Your task to perform on an android device: Add macbook to the cart on target.com, then select checkout. Image 0: 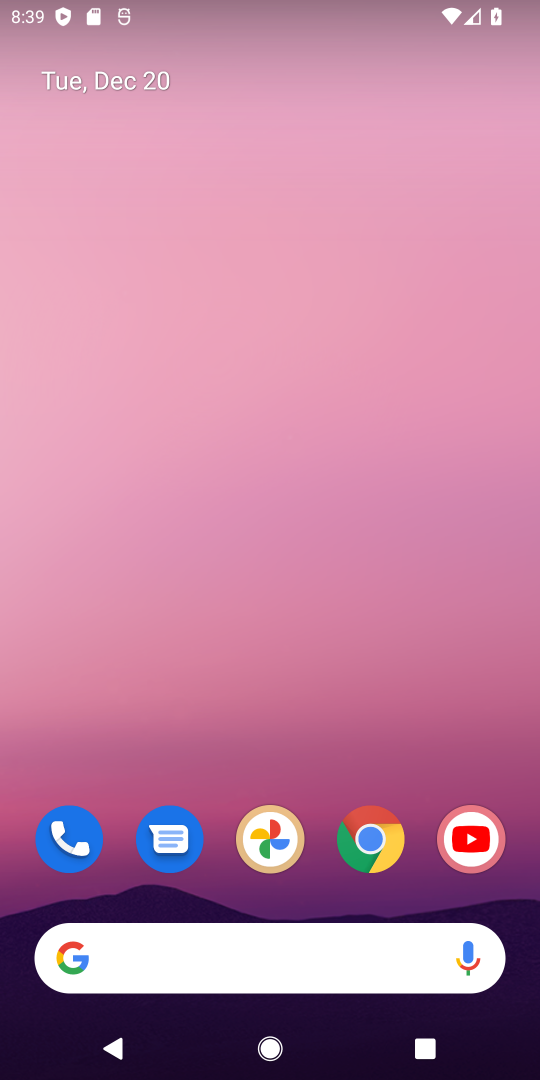
Step 0: drag from (269, 872) to (320, 353)
Your task to perform on an android device: Add macbook to the cart on target.com, then select checkout. Image 1: 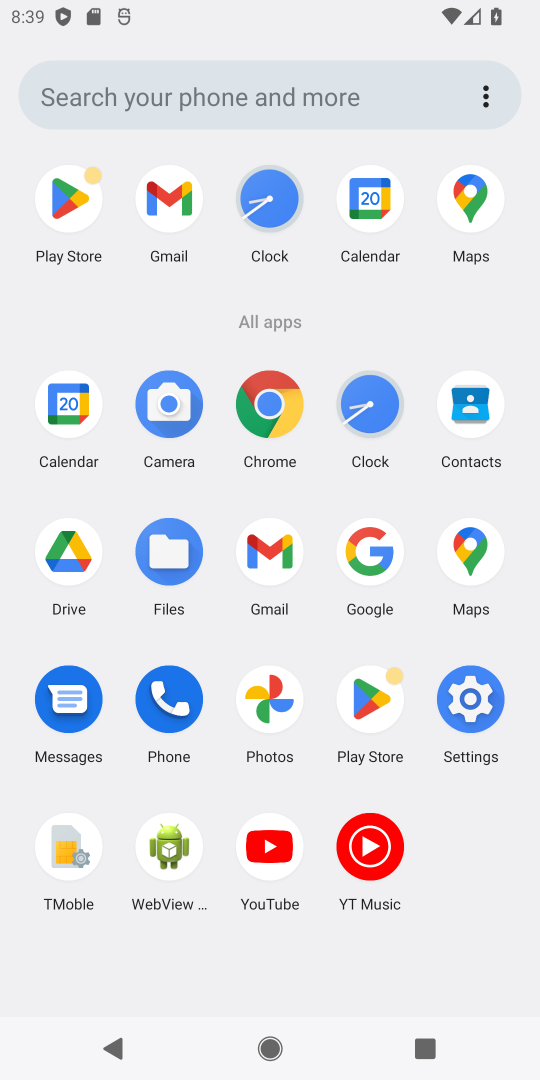
Step 1: click (375, 555)
Your task to perform on an android device: Add macbook to the cart on target.com, then select checkout. Image 2: 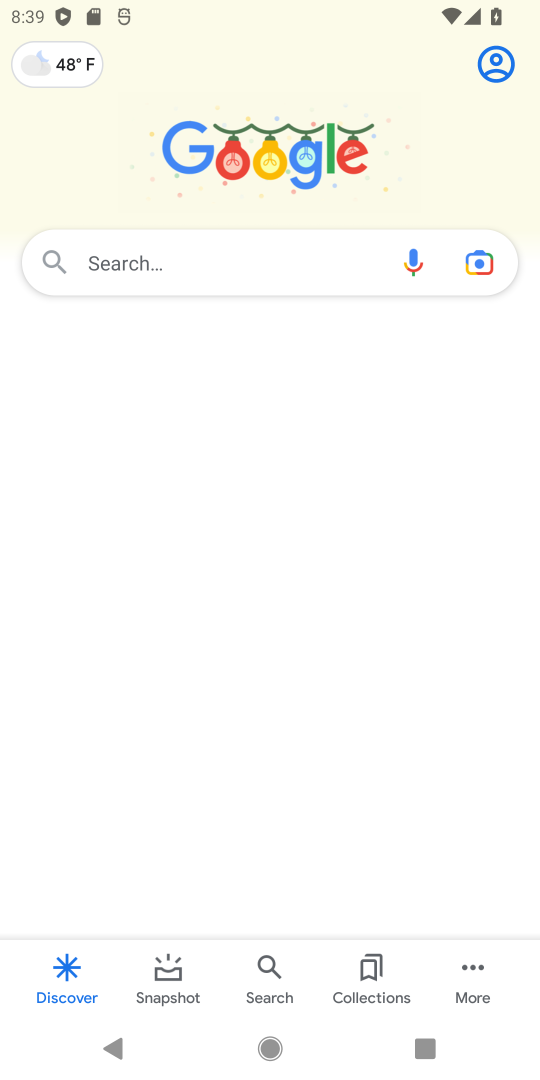
Step 2: click (221, 232)
Your task to perform on an android device: Add macbook to the cart on target.com, then select checkout. Image 3: 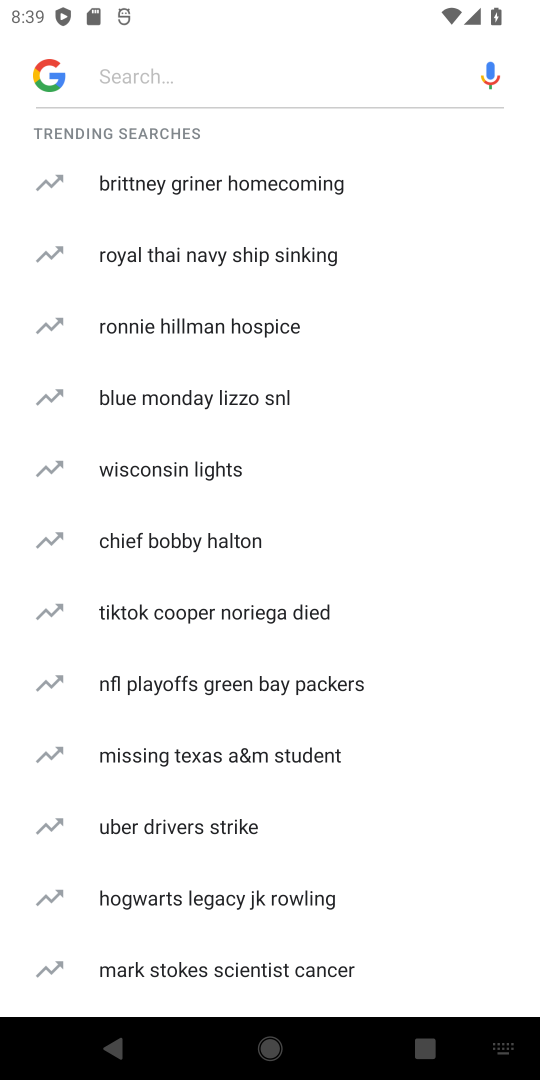
Step 3: type "target.com"
Your task to perform on an android device: Add macbook to the cart on target.com, then select checkout. Image 4: 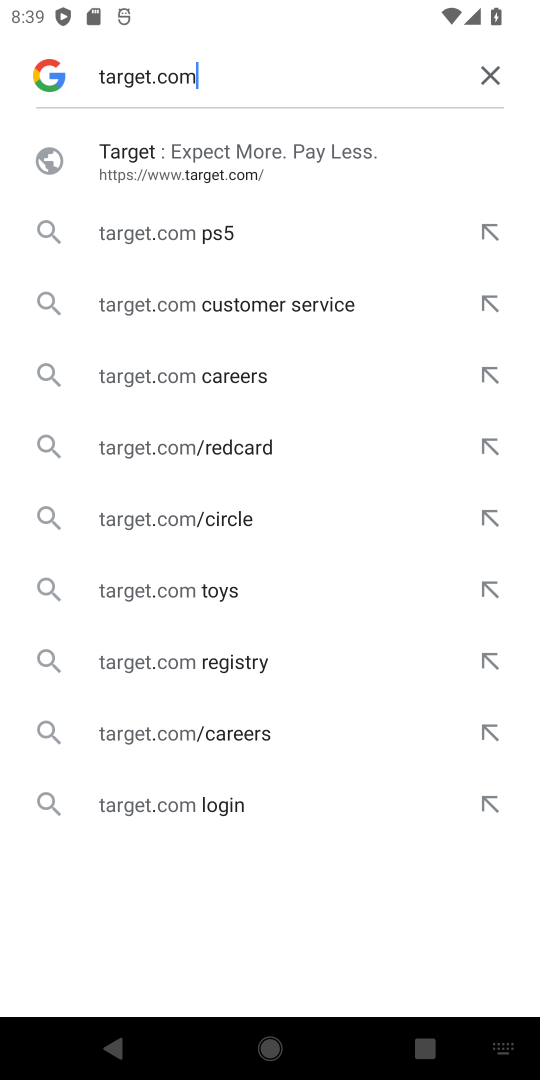
Step 4: click (208, 175)
Your task to perform on an android device: Add macbook to the cart on target.com, then select checkout. Image 5: 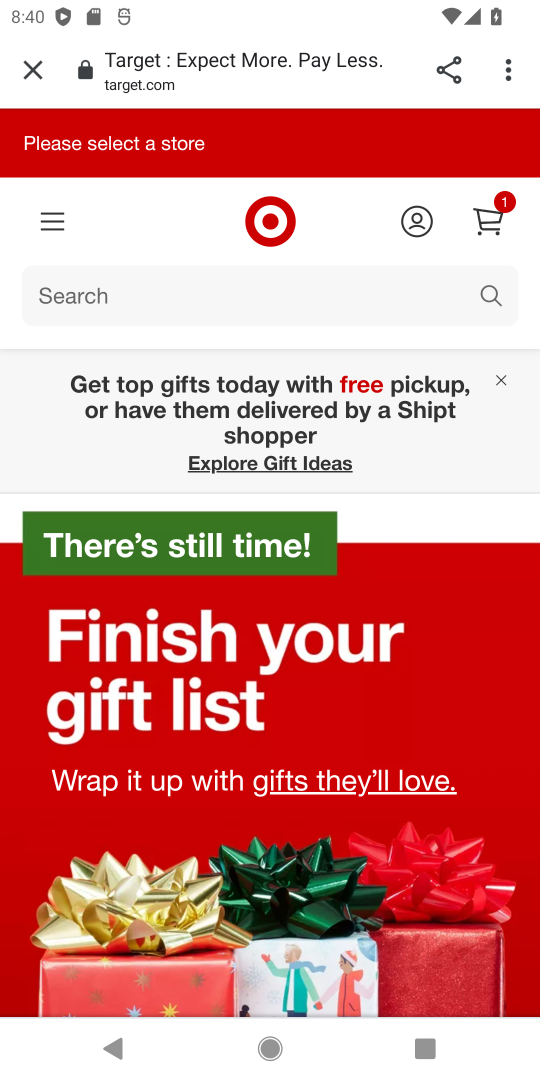
Step 5: click (319, 296)
Your task to perform on an android device: Add macbook to the cart on target.com, then select checkout. Image 6: 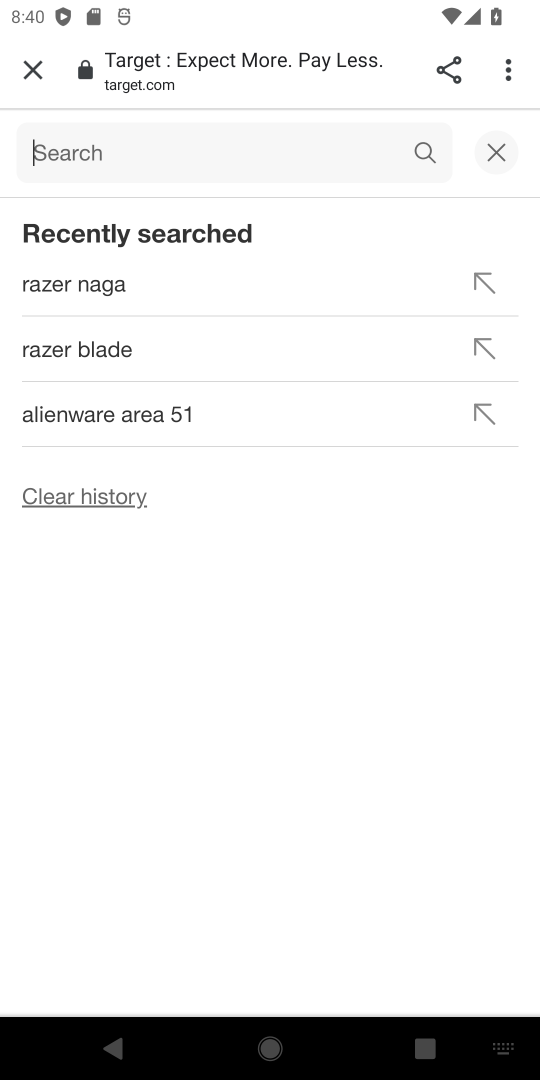
Step 6: type "macbook"
Your task to perform on an android device: Add macbook to the cart on target.com, then select checkout. Image 7: 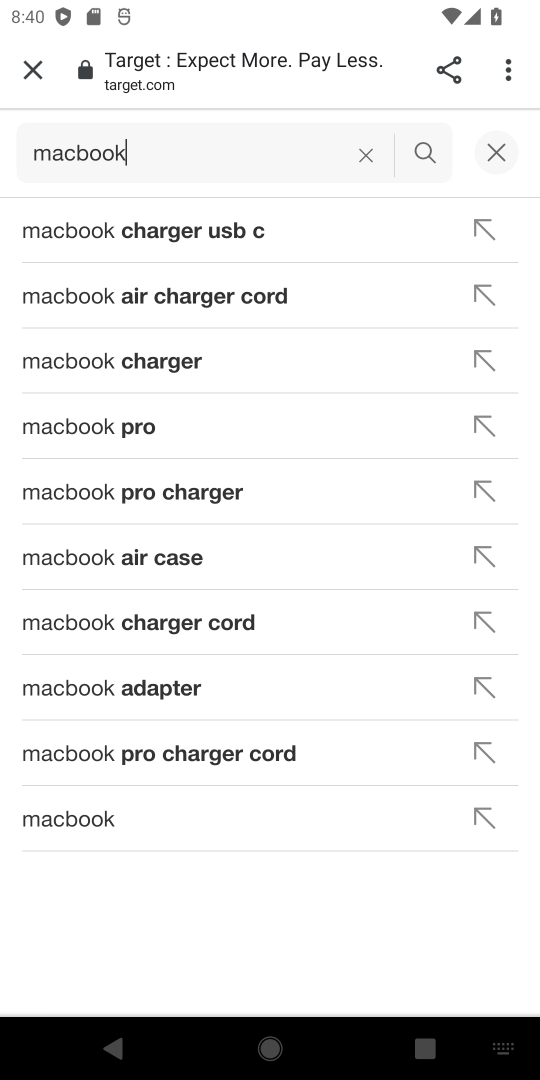
Step 7: click (416, 139)
Your task to perform on an android device: Add macbook to the cart on target.com, then select checkout. Image 8: 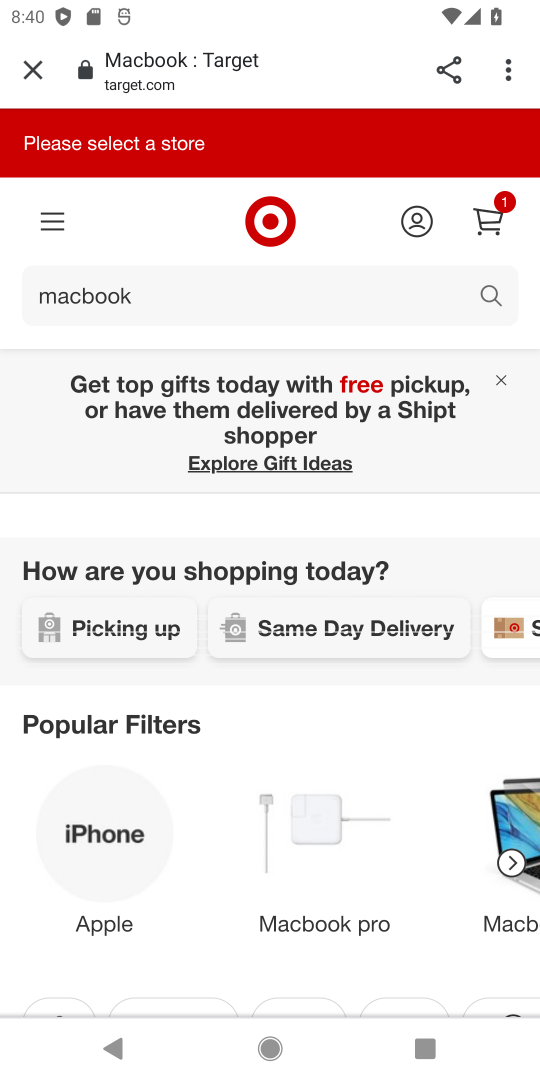
Step 8: drag from (298, 798) to (317, 540)
Your task to perform on an android device: Add macbook to the cart on target.com, then select checkout. Image 9: 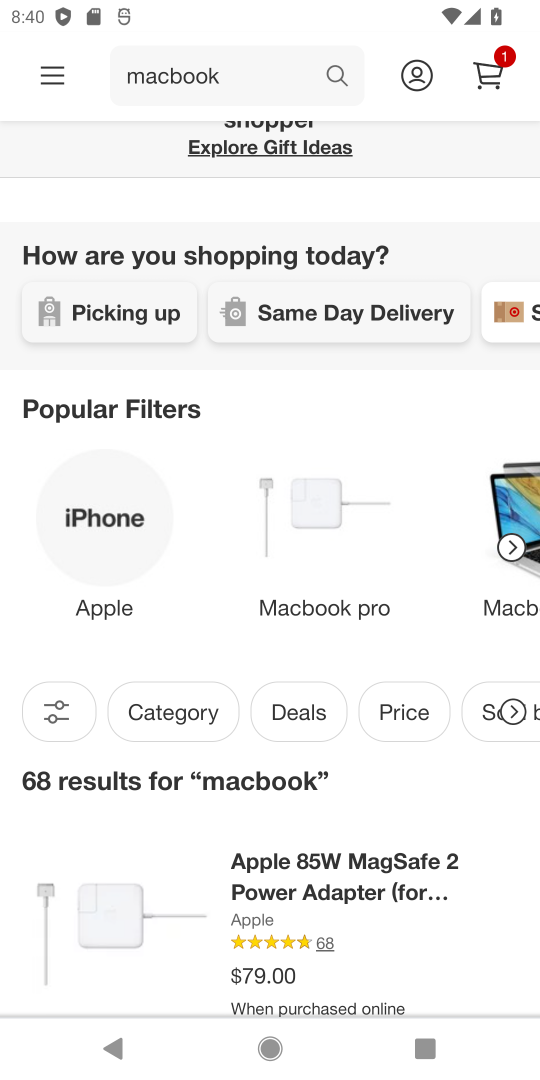
Step 9: drag from (229, 810) to (229, 597)
Your task to perform on an android device: Add macbook to the cart on target.com, then select checkout. Image 10: 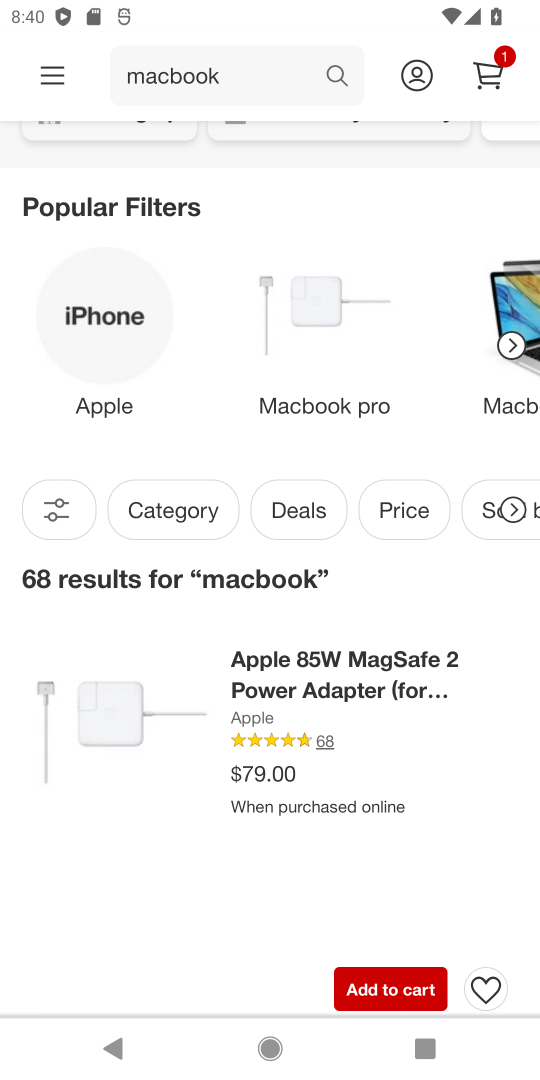
Step 10: click (404, 991)
Your task to perform on an android device: Add macbook to the cart on target.com, then select checkout. Image 11: 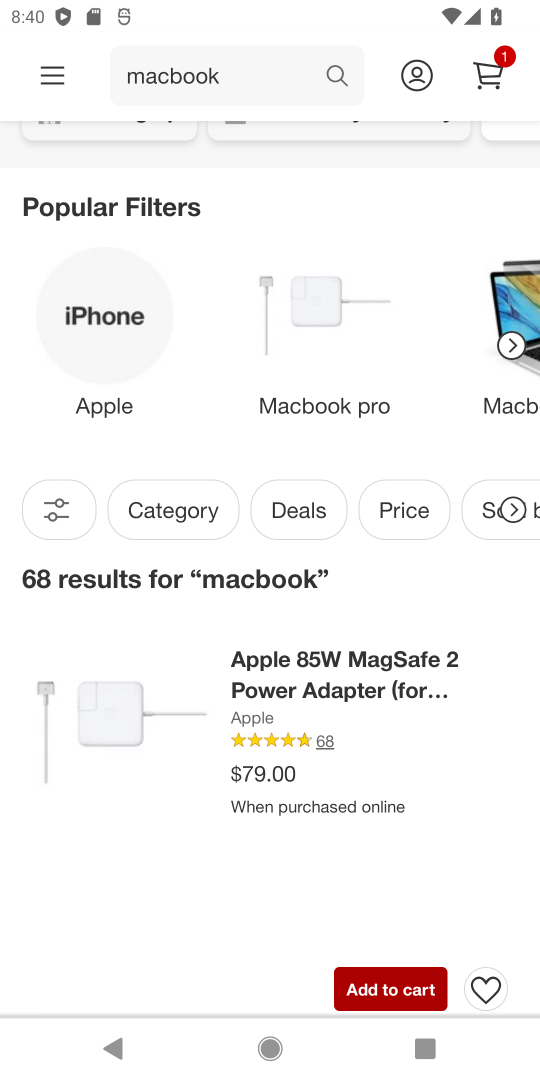
Step 11: click (379, 999)
Your task to perform on an android device: Add macbook to the cart on target.com, then select checkout. Image 12: 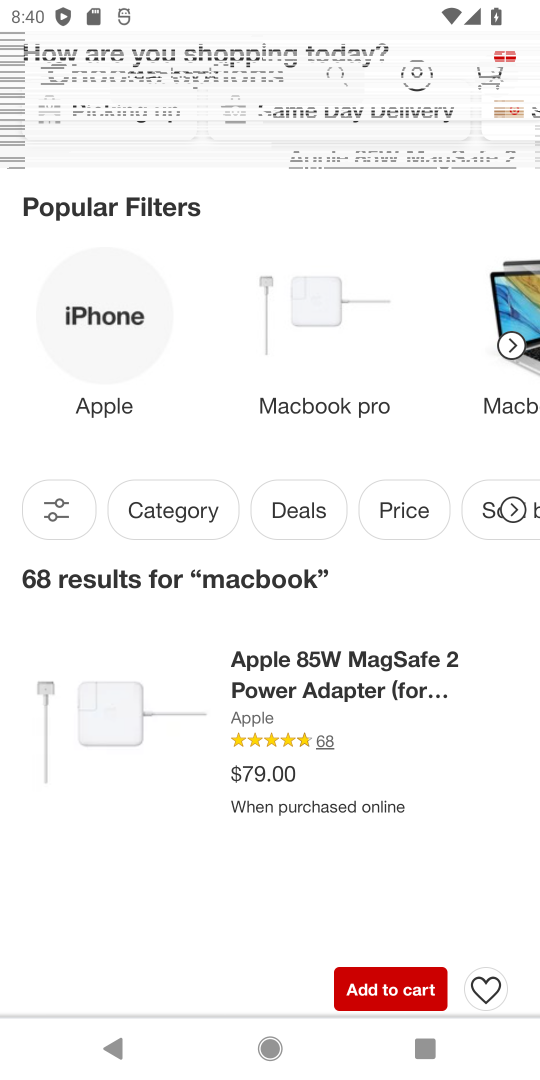
Step 12: click (498, 61)
Your task to perform on an android device: Add macbook to the cart on target.com, then select checkout. Image 13: 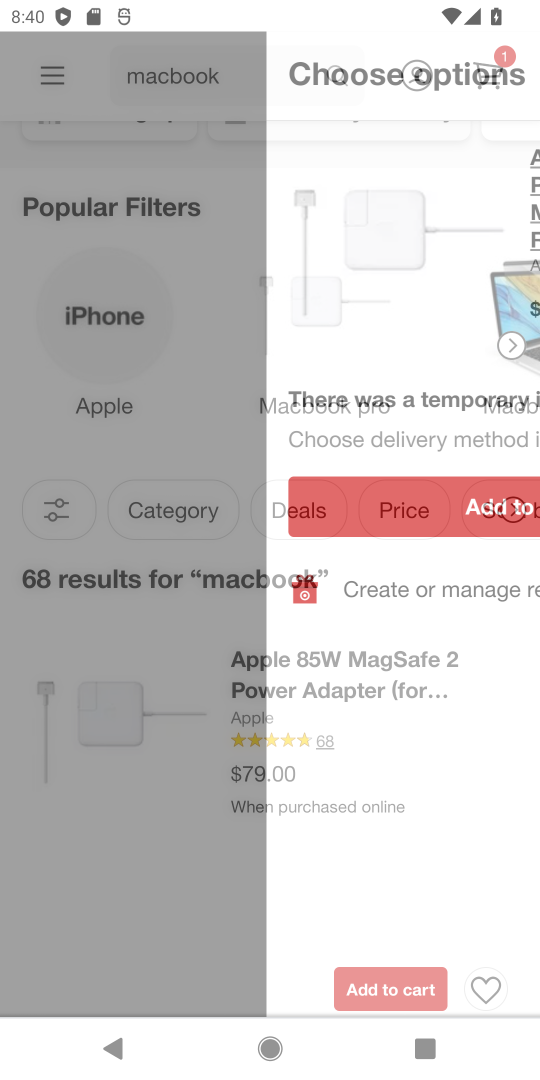
Step 13: click (0, 738)
Your task to perform on an android device: Add macbook to the cart on target.com, then select checkout. Image 14: 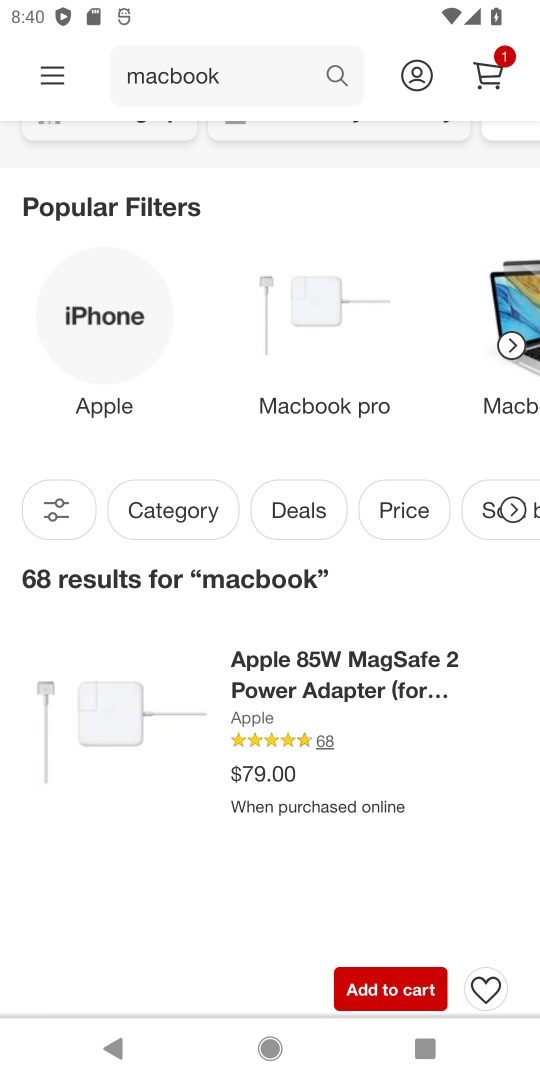
Step 14: click (293, 893)
Your task to perform on an android device: Add macbook to the cart on target.com, then select checkout. Image 15: 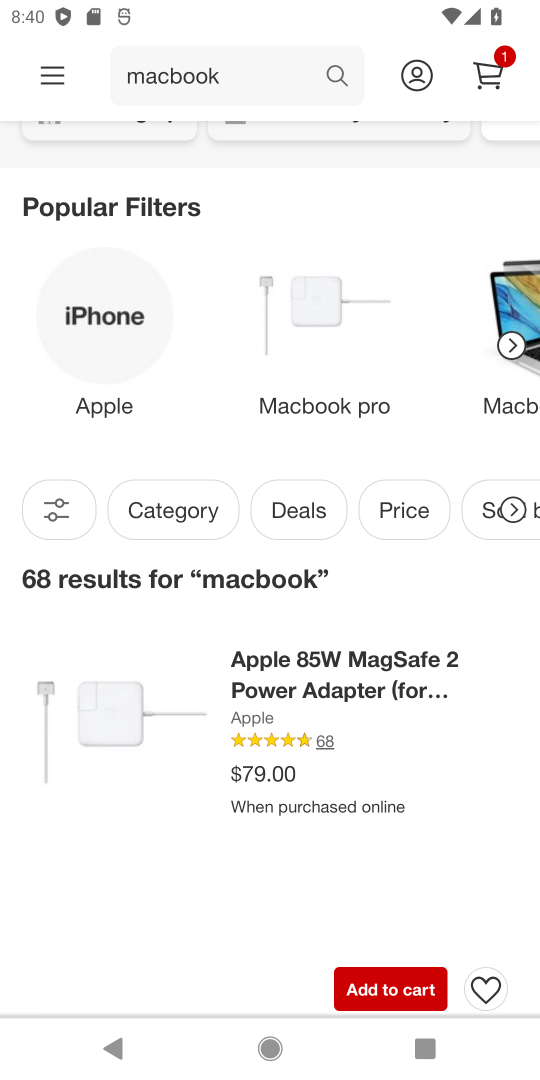
Step 15: click (495, 81)
Your task to perform on an android device: Add macbook to the cart on target.com, then select checkout. Image 16: 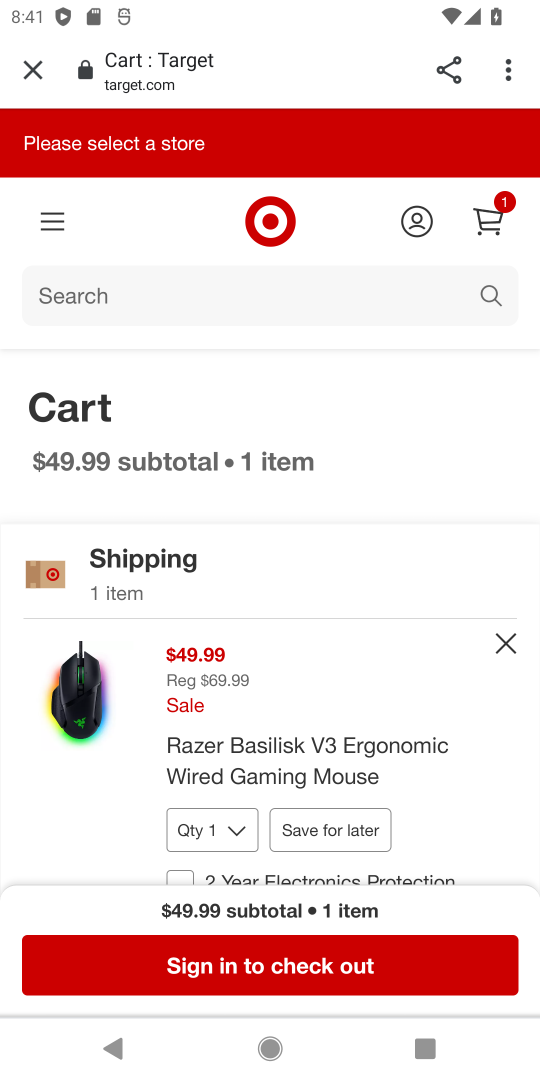
Step 16: drag from (429, 545) to (429, 351)
Your task to perform on an android device: Add macbook to the cart on target.com, then select checkout. Image 17: 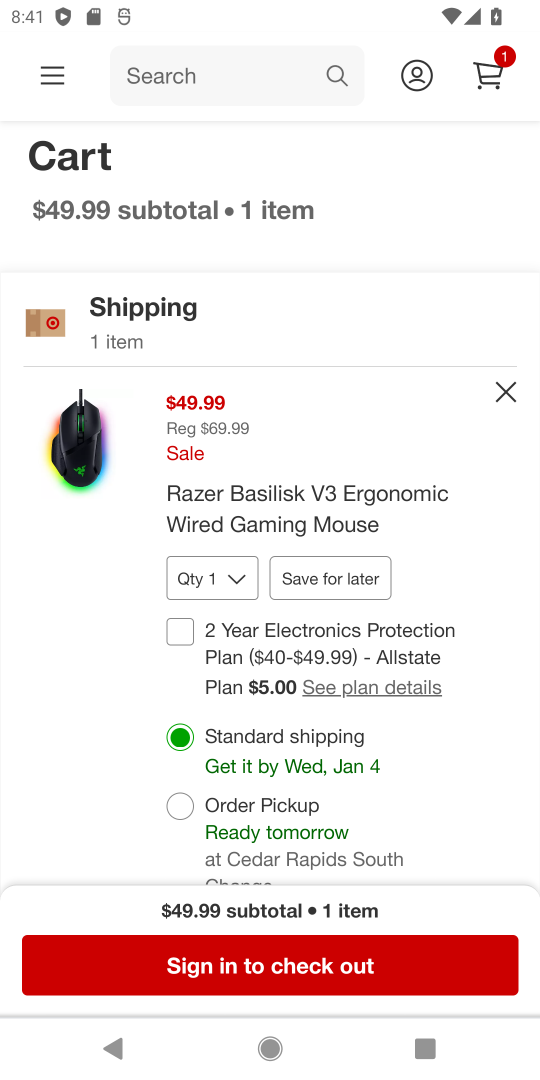
Step 17: click (249, 976)
Your task to perform on an android device: Add macbook to the cart on target.com, then select checkout. Image 18: 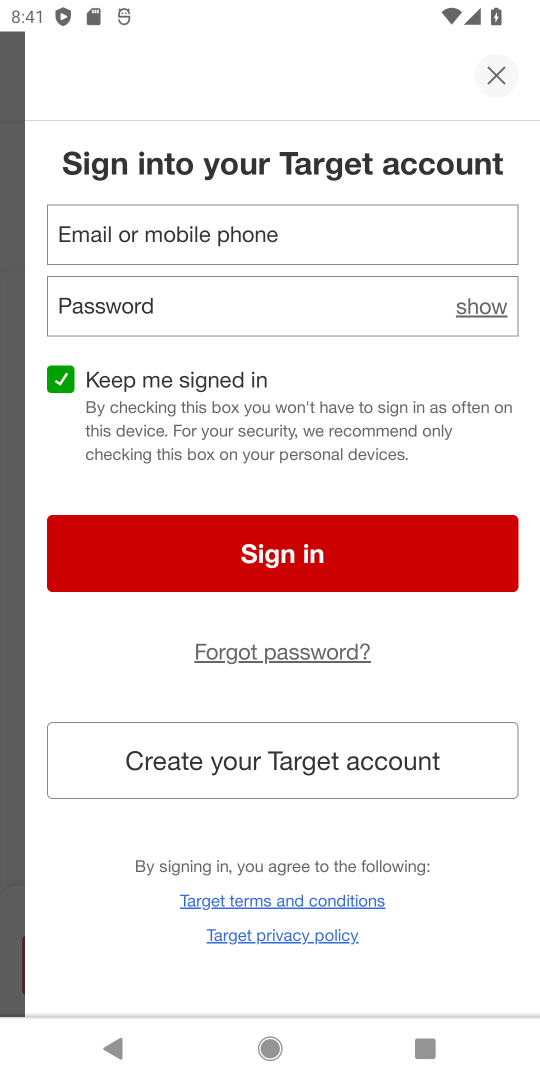
Step 18: task complete